Your task to perform on an android device: check out phone information Image 0: 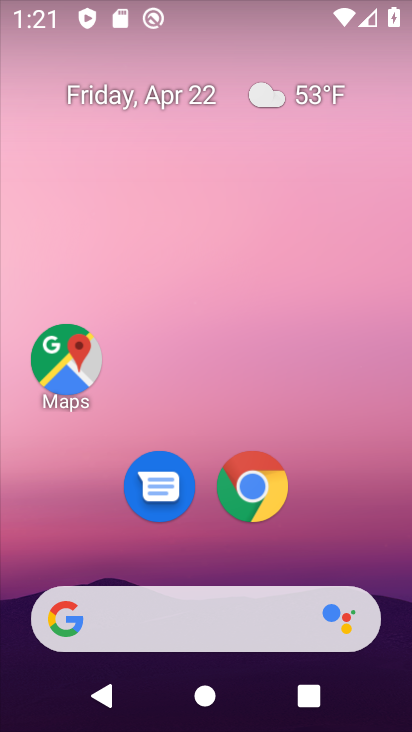
Step 0: drag from (176, 494) to (186, 36)
Your task to perform on an android device: check out phone information Image 1: 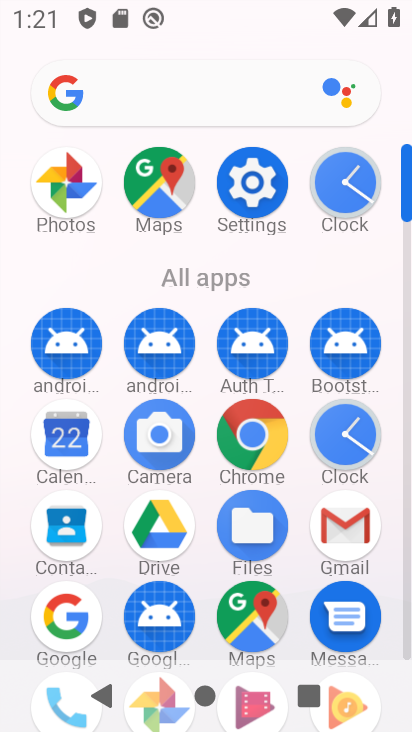
Step 1: drag from (166, 327) to (181, 59)
Your task to perform on an android device: check out phone information Image 2: 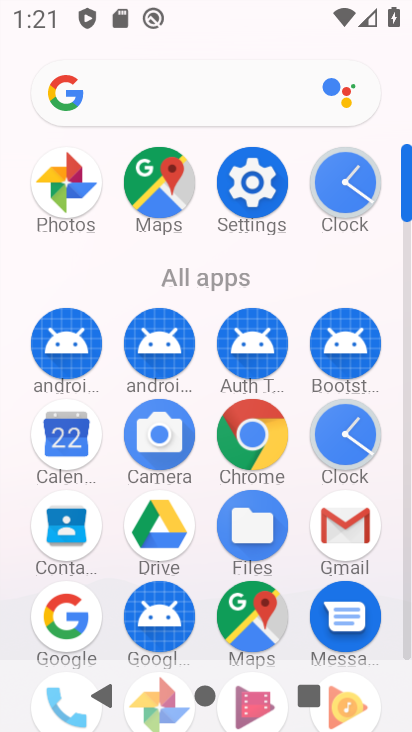
Step 2: drag from (104, 583) to (91, 134)
Your task to perform on an android device: check out phone information Image 3: 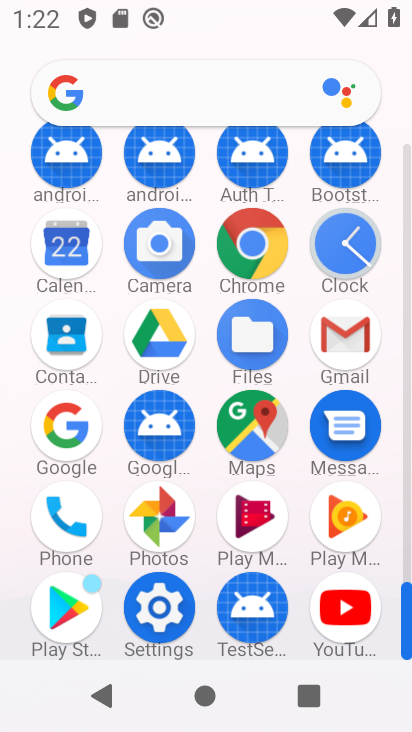
Step 3: click (169, 604)
Your task to perform on an android device: check out phone information Image 4: 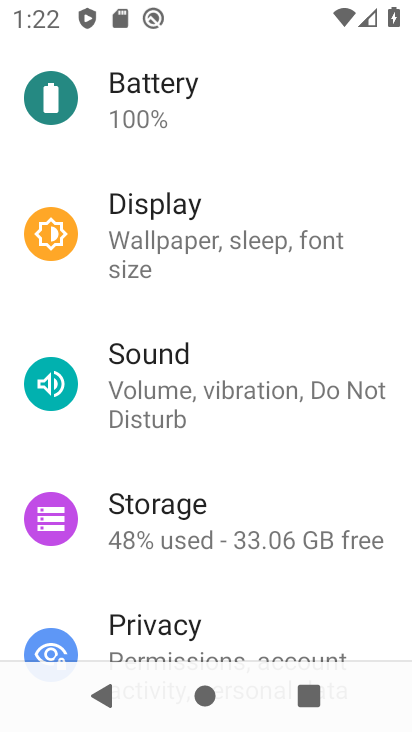
Step 4: drag from (185, 592) to (196, 275)
Your task to perform on an android device: check out phone information Image 5: 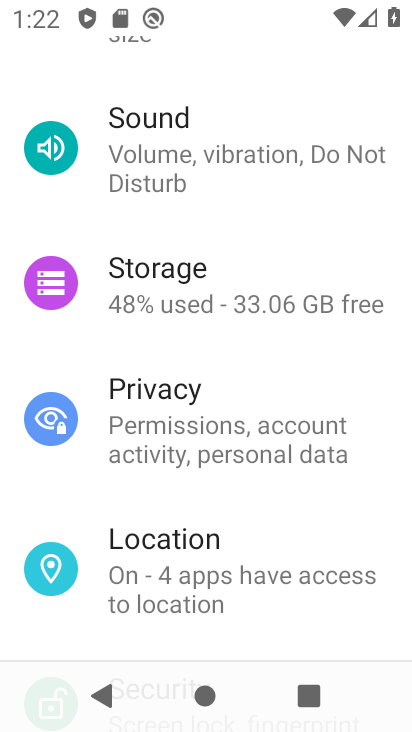
Step 5: drag from (130, 591) to (155, 98)
Your task to perform on an android device: check out phone information Image 6: 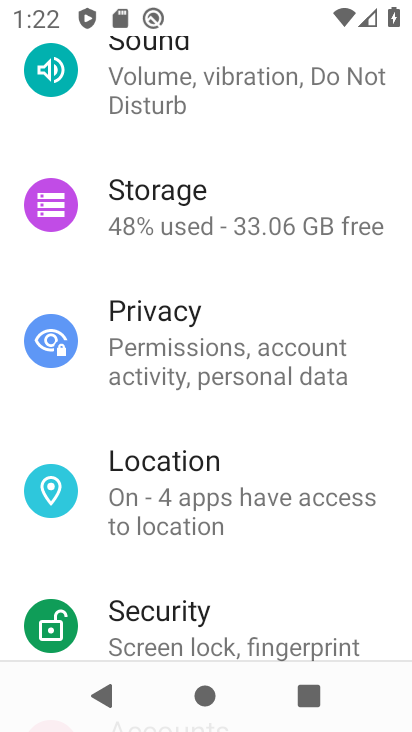
Step 6: drag from (140, 539) to (157, 112)
Your task to perform on an android device: check out phone information Image 7: 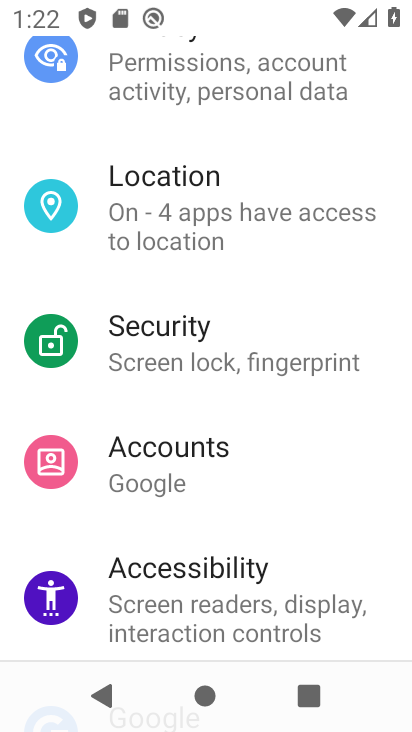
Step 7: drag from (89, 569) to (137, 126)
Your task to perform on an android device: check out phone information Image 8: 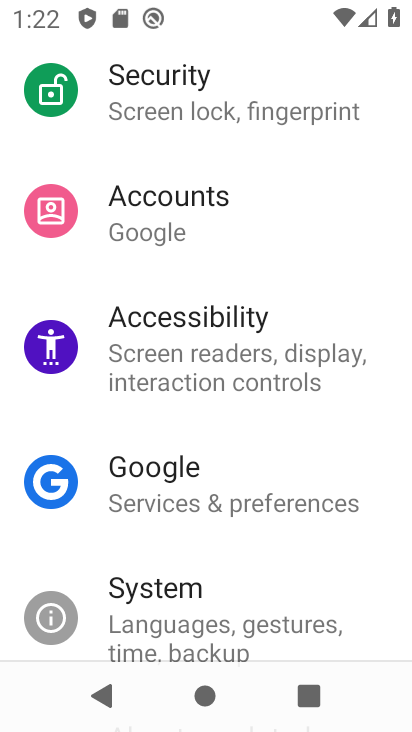
Step 8: drag from (186, 615) to (211, 260)
Your task to perform on an android device: check out phone information Image 9: 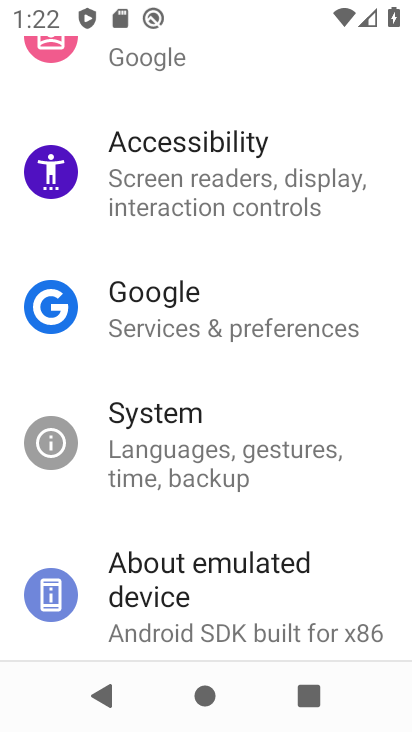
Step 9: drag from (103, 593) to (377, 258)
Your task to perform on an android device: check out phone information Image 10: 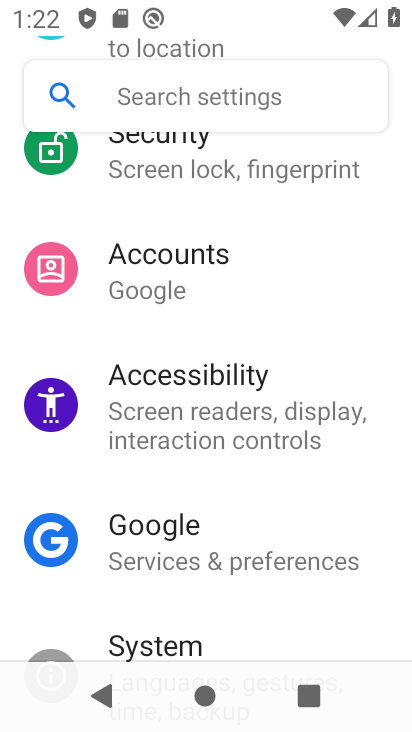
Step 10: drag from (177, 573) to (227, 39)
Your task to perform on an android device: check out phone information Image 11: 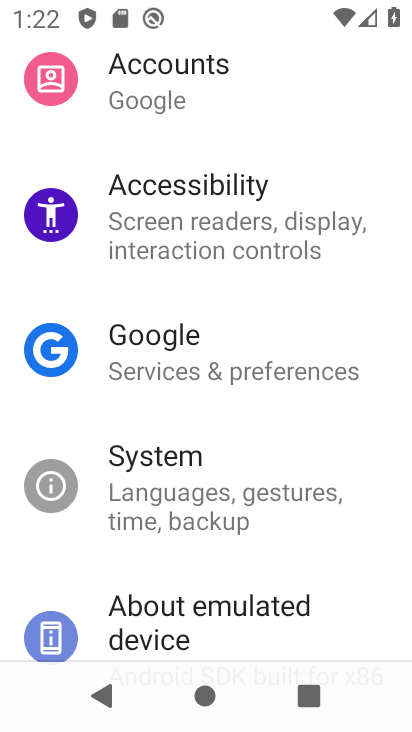
Step 11: drag from (179, 600) to (245, 28)
Your task to perform on an android device: check out phone information Image 12: 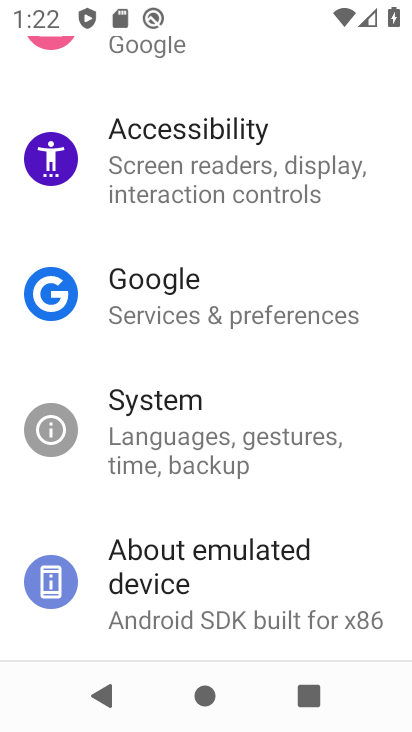
Step 12: click (139, 598)
Your task to perform on an android device: check out phone information Image 13: 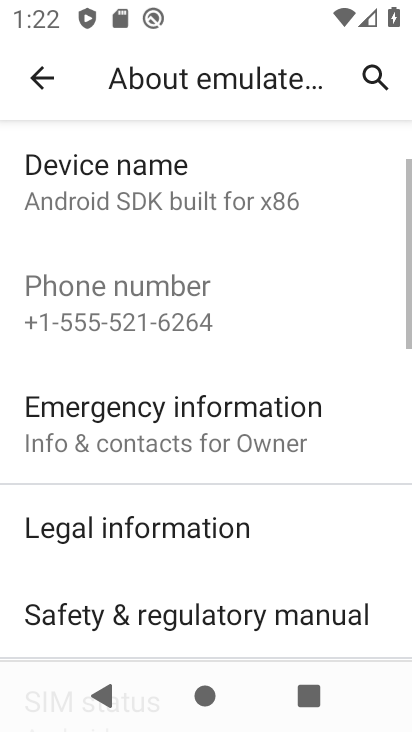
Step 13: task complete